Your task to perform on an android device: open app "Life360: Find Family & Friends" (install if not already installed) Image 0: 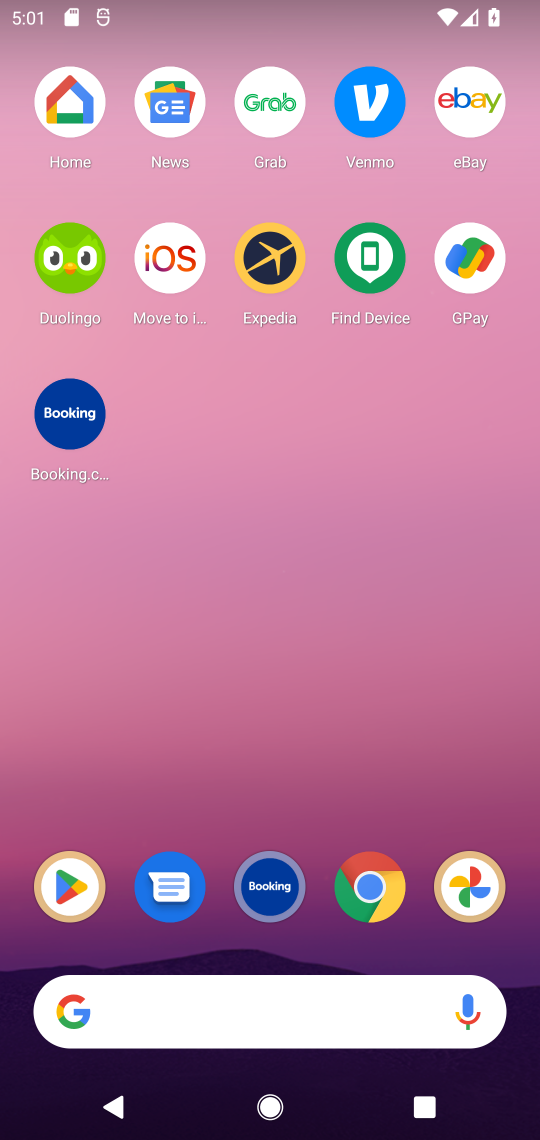
Step 0: click (73, 864)
Your task to perform on an android device: open app "Life360: Find Family & Friends" (install if not already installed) Image 1: 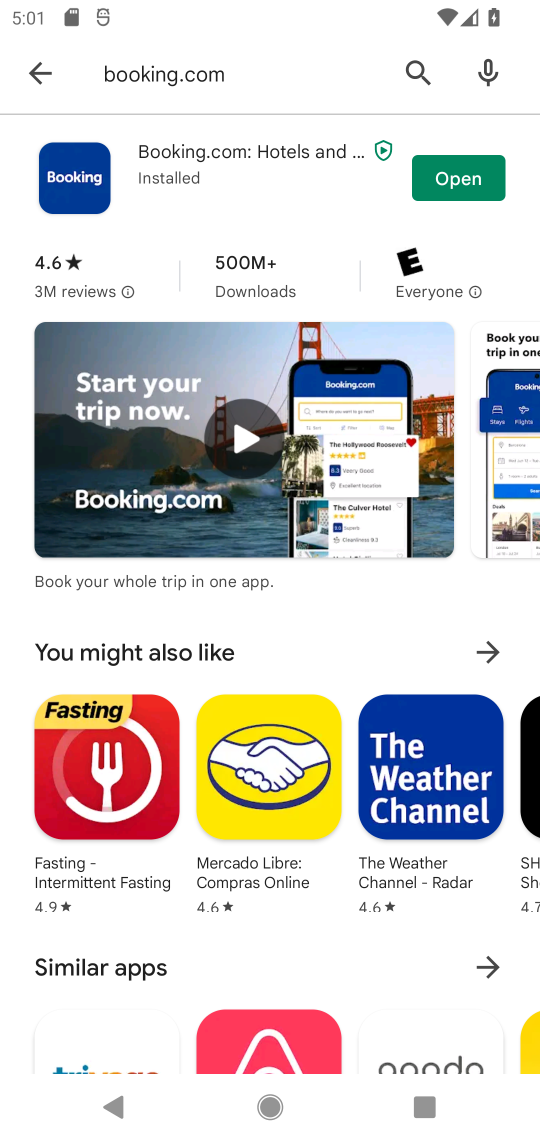
Step 1: click (28, 80)
Your task to perform on an android device: open app "Life360: Find Family & Friends" (install if not already installed) Image 2: 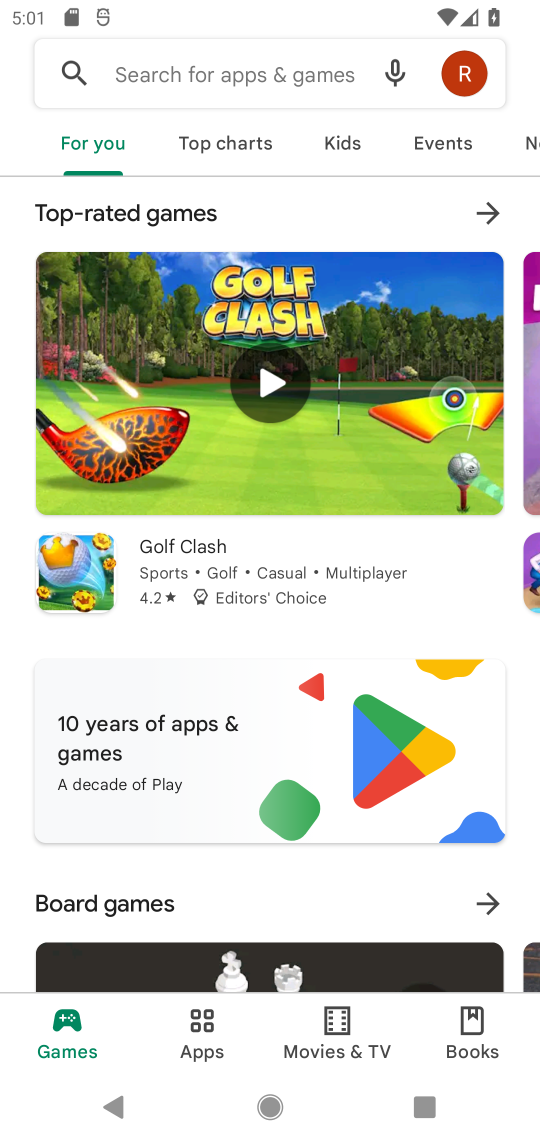
Step 2: click (164, 70)
Your task to perform on an android device: open app "Life360: Find Family & Friends" (install if not already installed) Image 3: 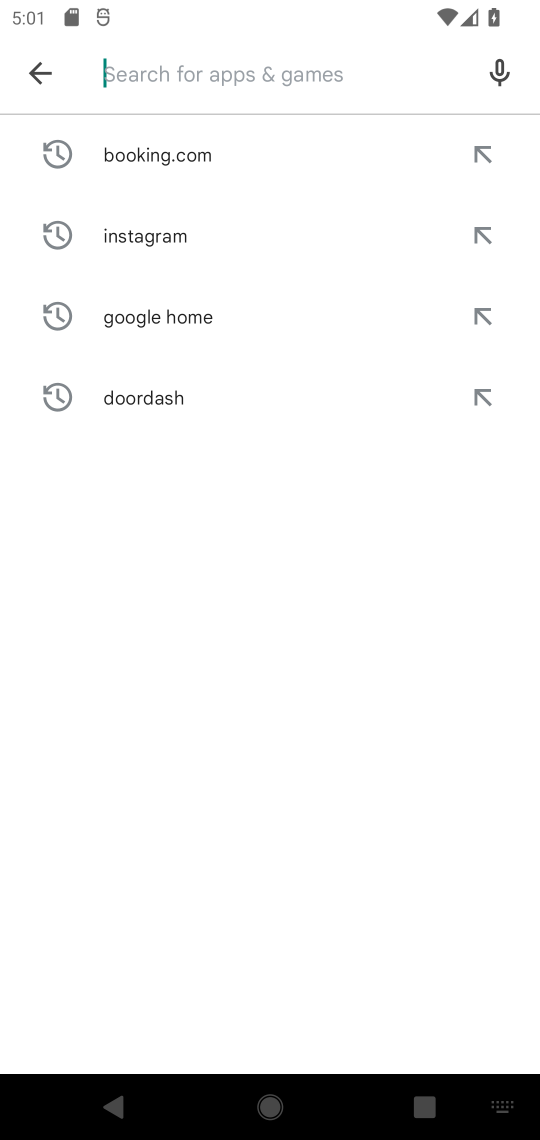
Step 3: type "Life360"
Your task to perform on an android device: open app "Life360: Find Family & Friends" (install if not already installed) Image 4: 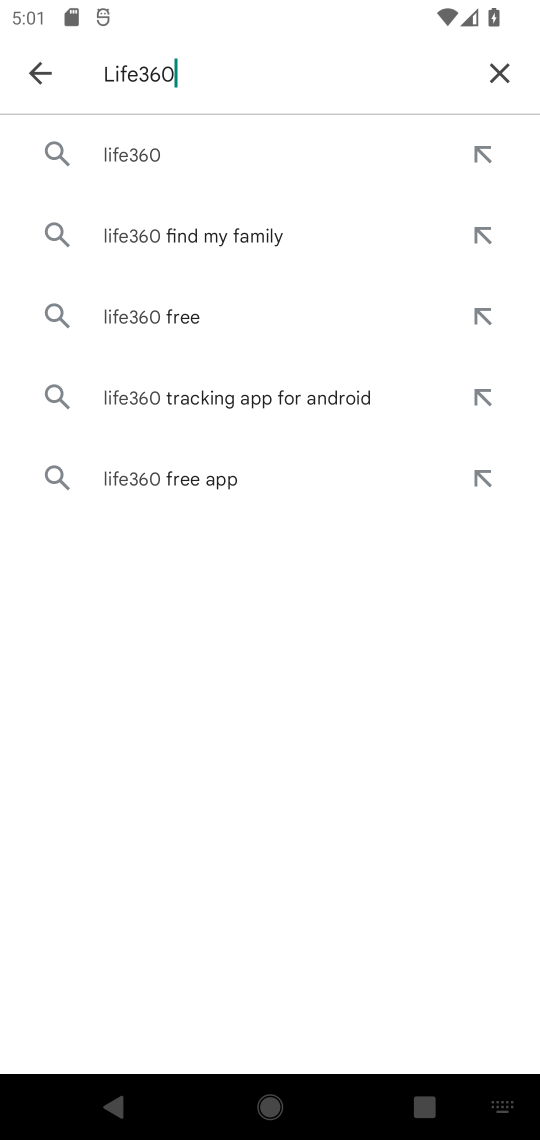
Step 4: click (131, 221)
Your task to perform on an android device: open app "Life360: Find Family & Friends" (install if not already installed) Image 5: 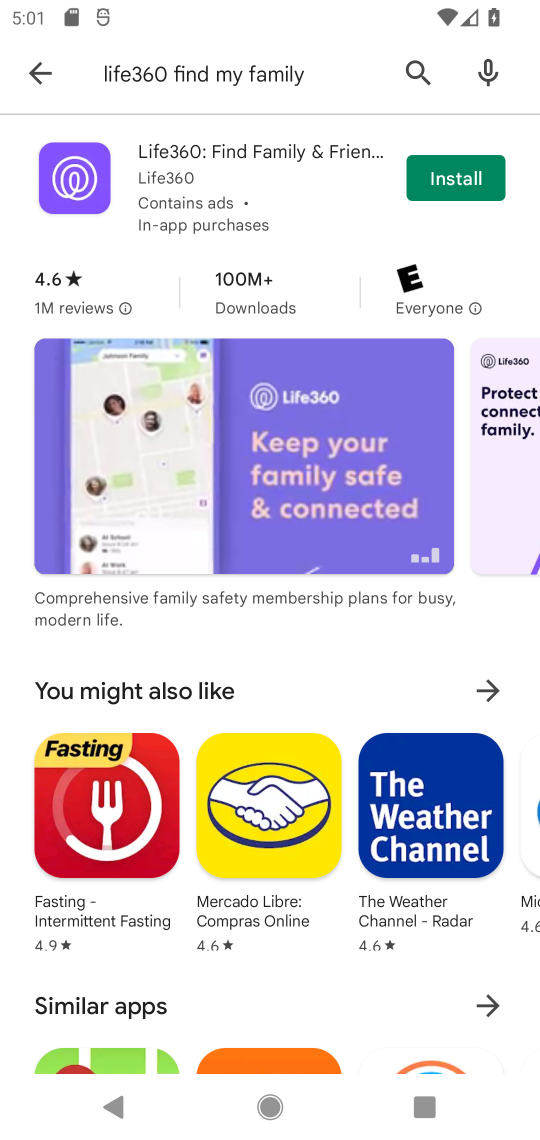
Step 5: click (462, 170)
Your task to perform on an android device: open app "Life360: Find Family & Friends" (install if not already installed) Image 6: 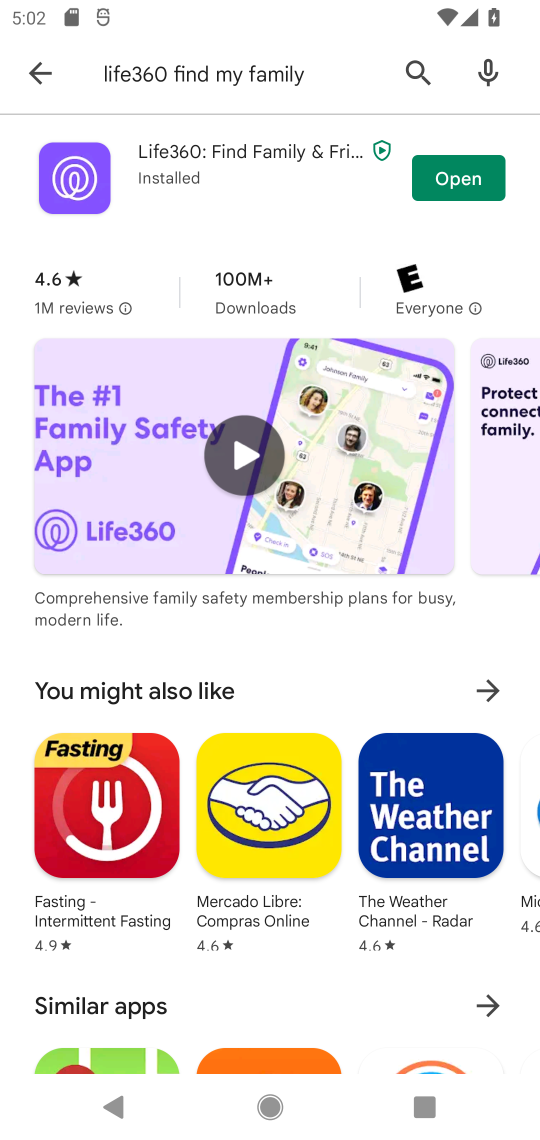
Step 6: click (461, 157)
Your task to perform on an android device: open app "Life360: Find Family & Friends" (install if not already installed) Image 7: 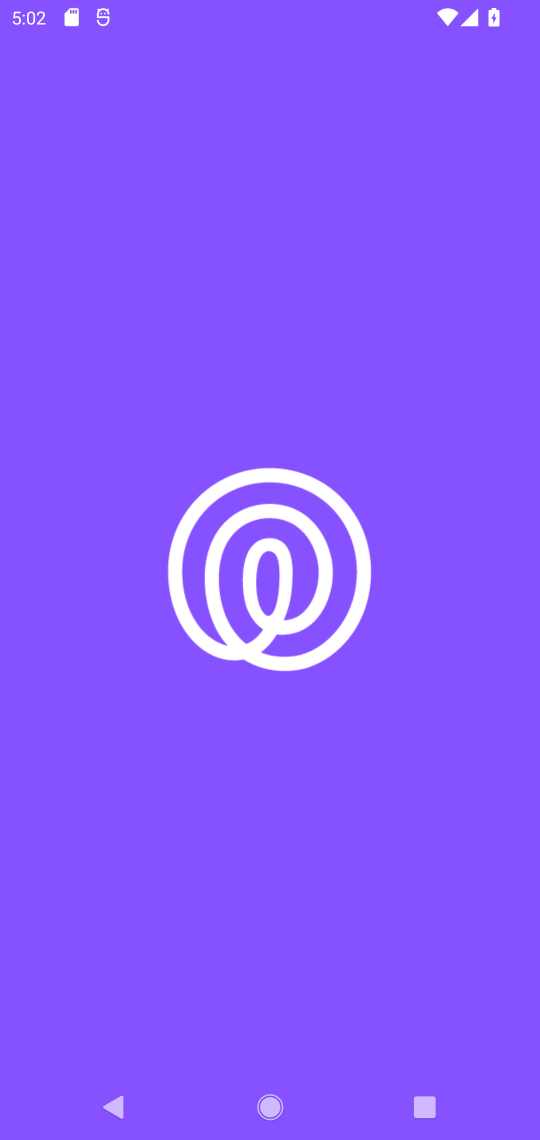
Step 7: task complete